Your task to perform on an android device: Is it going to rain tomorrow? Image 0: 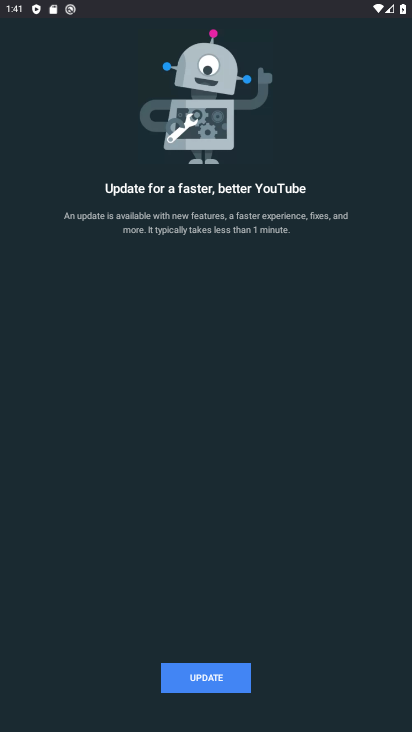
Step 0: press home button
Your task to perform on an android device: Is it going to rain tomorrow? Image 1: 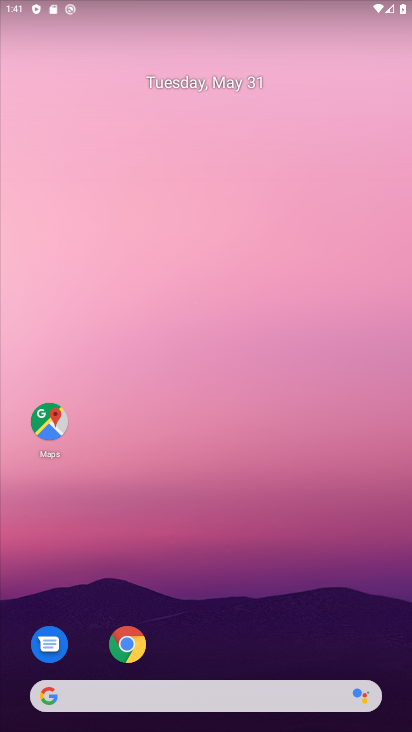
Step 1: click (125, 655)
Your task to perform on an android device: Is it going to rain tomorrow? Image 2: 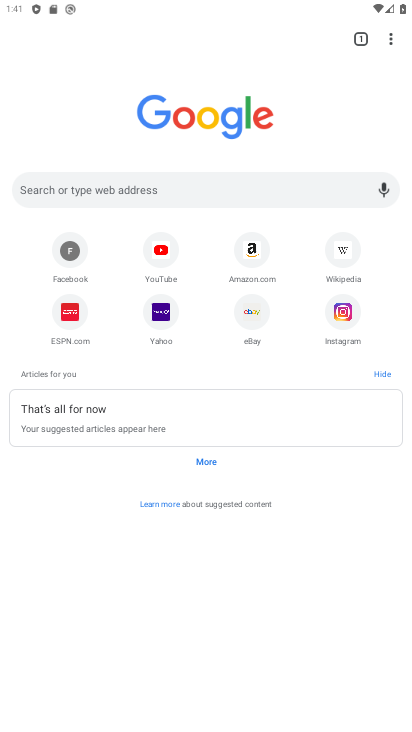
Step 2: click (223, 180)
Your task to perform on an android device: Is it going to rain tomorrow? Image 3: 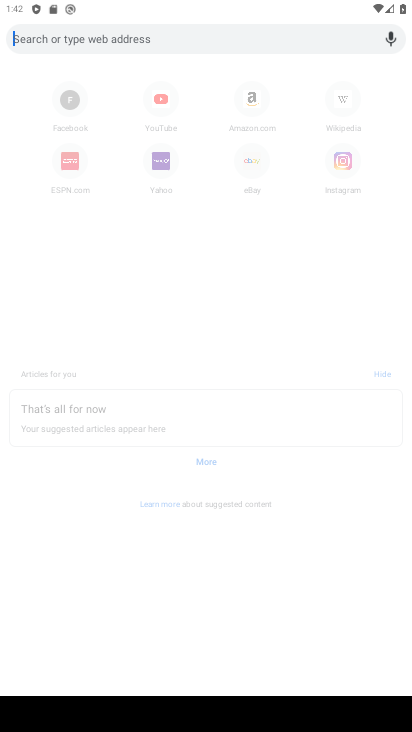
Step 3: type "Is it going to rain tomorrow?"
Your task to perform on an android device: Is it going to rain tomorrow? Image 4: 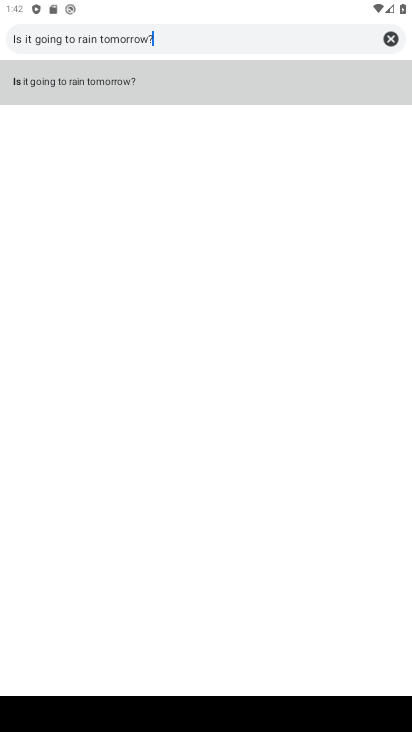
Step 4: click (50, 77)
Your task to perform on an android device: Is it going to rain tomorrow? Image 5: 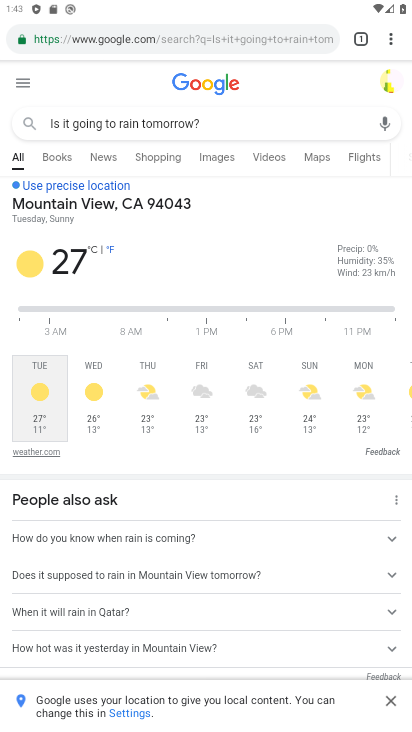
Step 5: task complete